Your task to perform on an android device: Open Google Maps and go to "Timeline" Image 0: 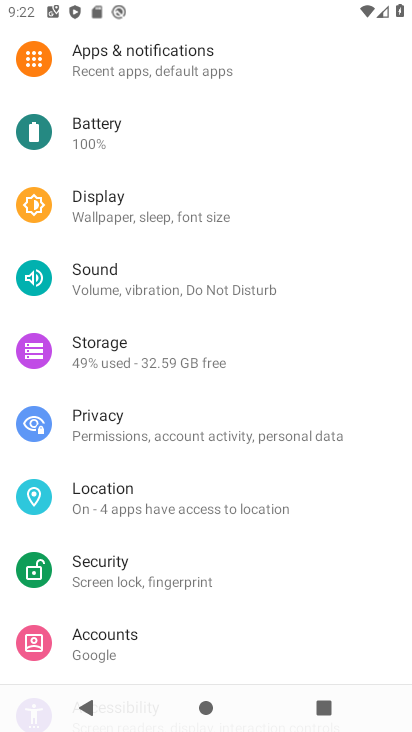
Step 0: press home button
Your task to perform on an android device: Open Google Maps and go to "Timeline" Image 1: 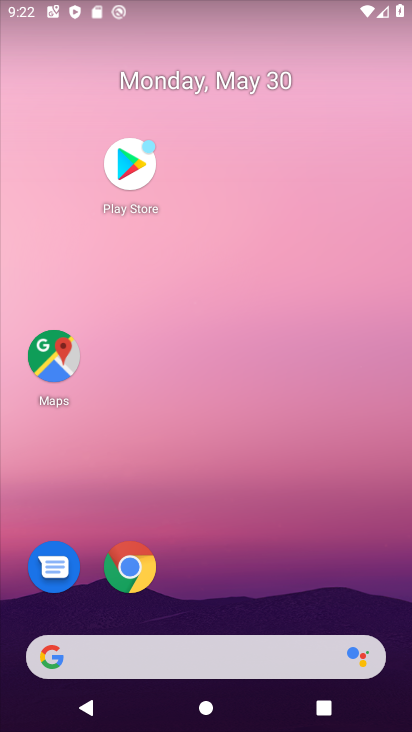
Step 1: click (55, 371)
Your task to perform on an android device: Open Google Maps and go to "Timeline" Image 2: 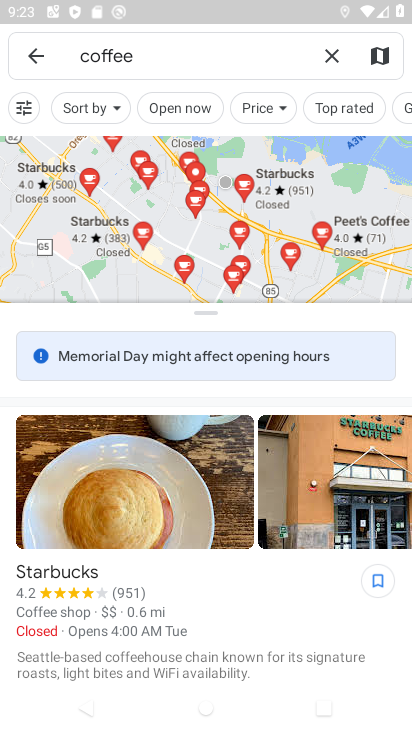
Step 2: click (34, 61)
Your task to perform on an android device: Open Google Maps and go to "Timeline" Image 3: 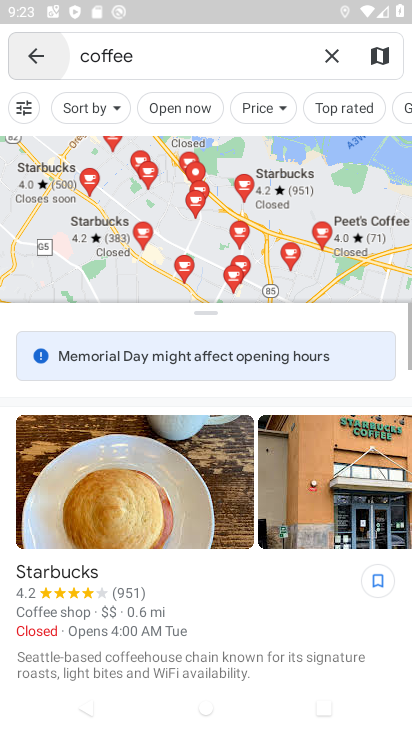
Step 3: click (34, 61)
Your task to perform on an android device: Open Google Maps and go to "Timeline" Image 4: 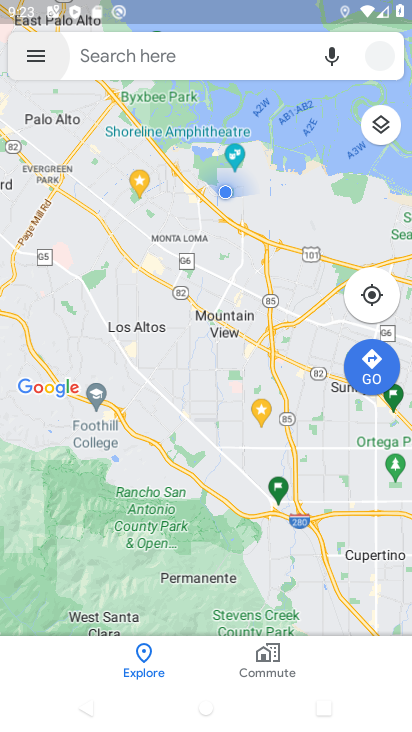
Step 4: click (34, 61)
Your task to perform on an android device: Open Google Maps and go to "Timeline" Image 5: 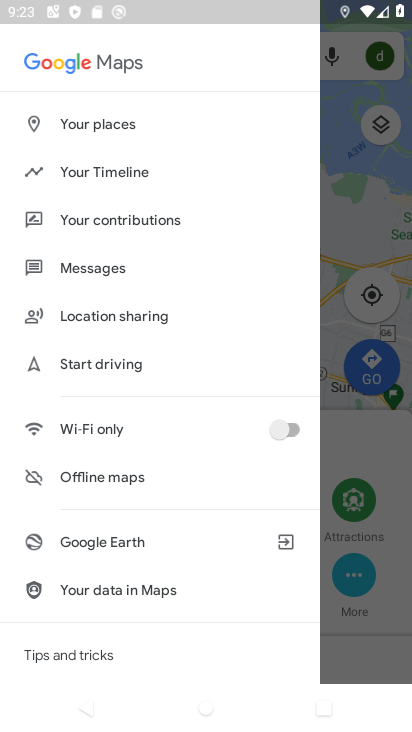
Step 5: click (142, 162)
Your task to perform on an android device: Open Google Maps and go to "Timeline" Image 6: 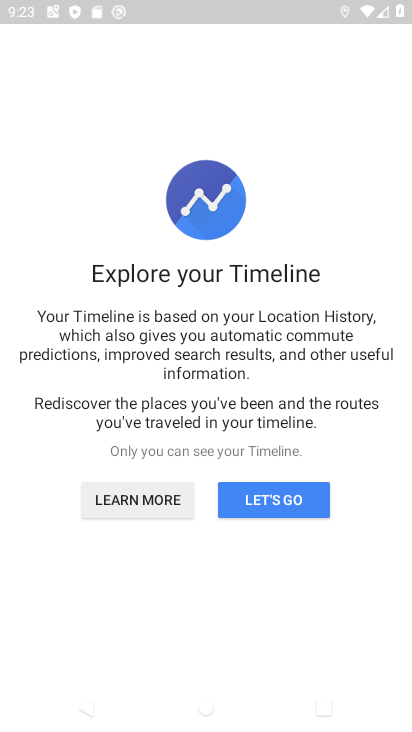
Step 6: click (320, 496)
Your task to perform on an android device: Open Google Maps and go to "Timeline" Image 7: 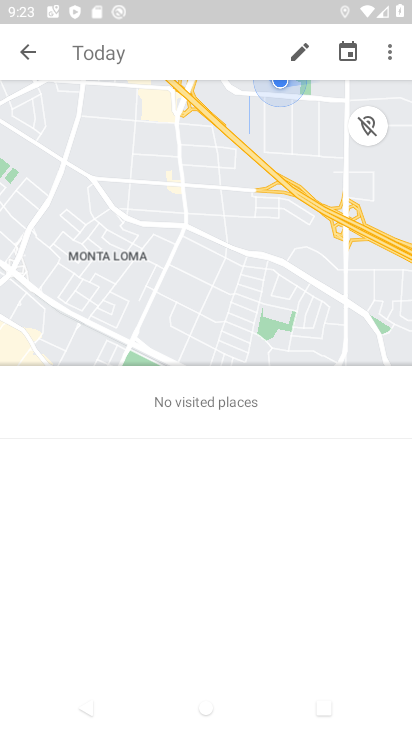
Step 7: click (320, 496)
Your task to perform on an android device: Open Google Maps and go to "Timeline" Image 8: 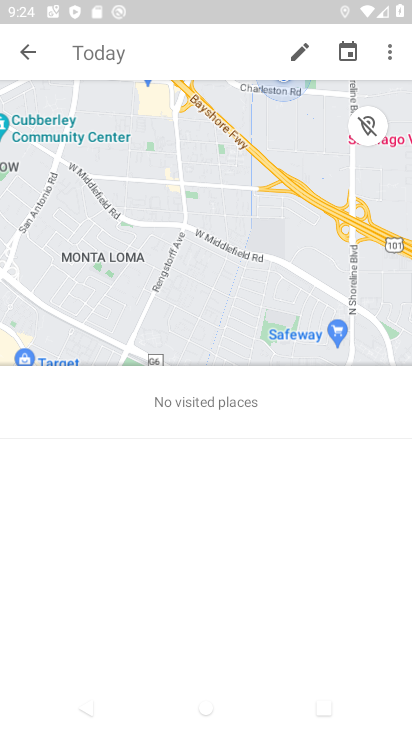
Step 8: click (31, 52)
Your task to perform on an android device: Open Google Maps and go to "Timeline" Image 9: 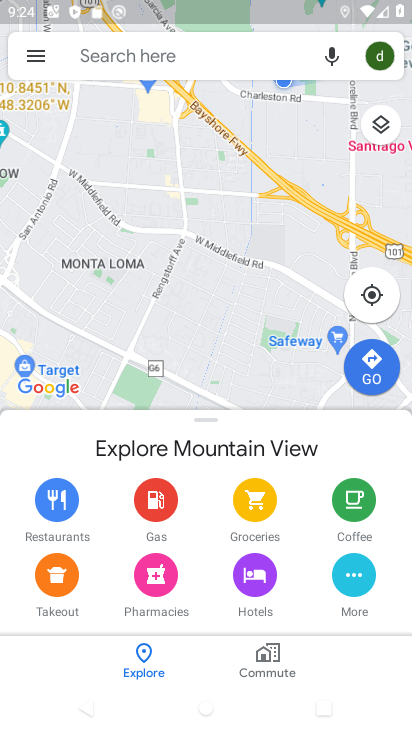
Step 9: click (31, 52)
Your task to perform on an android device: Open Google Maps and go to "Timeline" Image 10: 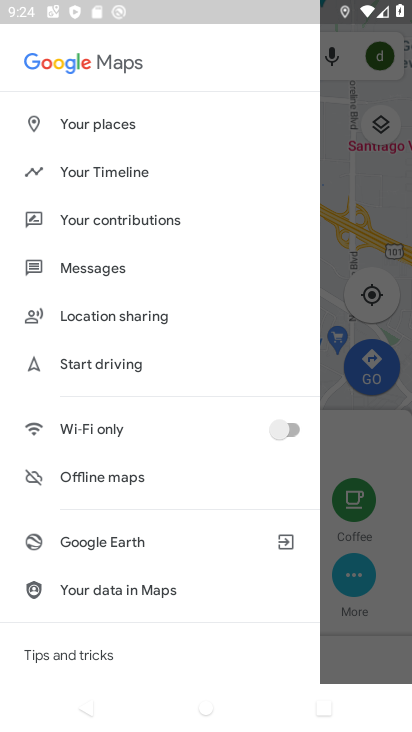
Step 10: click (129, 172)
Your task to perform on an android device: Open Google Maps and go to "Timeline" Image 11: 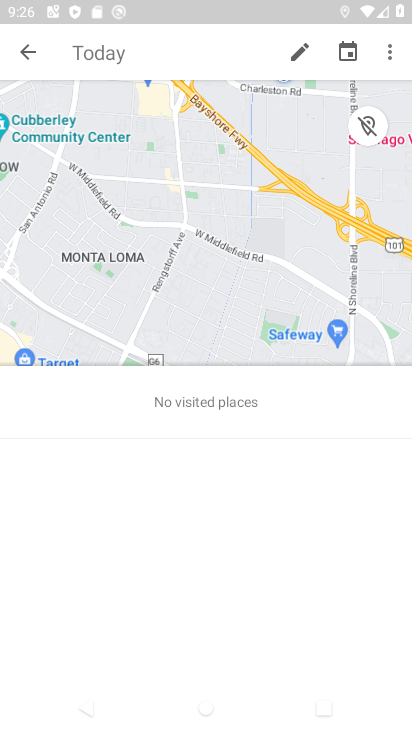
Step 11: task complete